Your task to perform on an android device: Open calendar and show me the first week of next month Image 0: 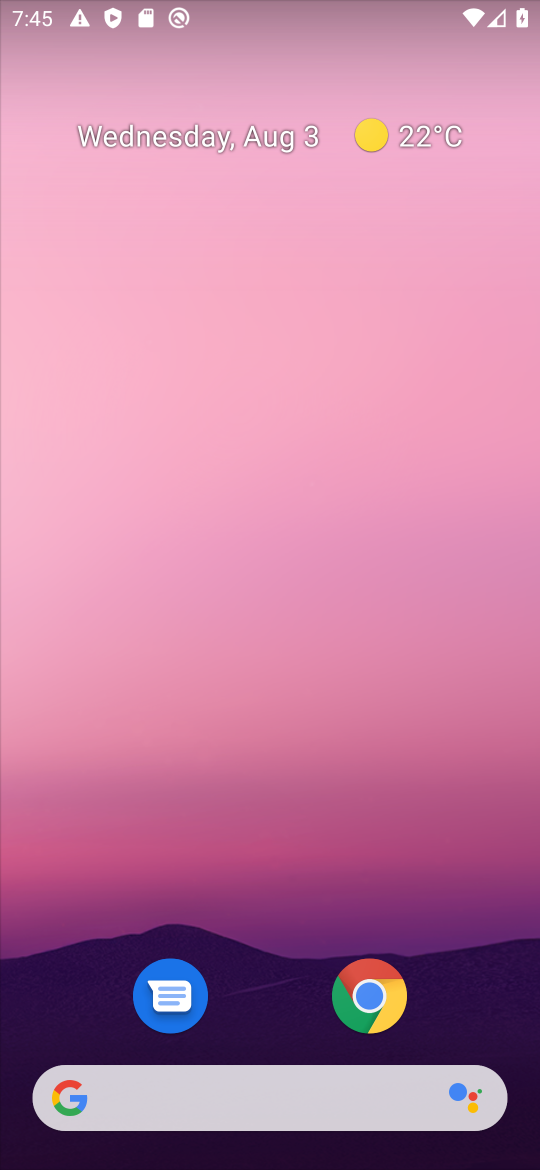
Step 0: drag from (271, 1005) to (312, 173)
Your task to perform on an android device: Open calendar and show me the first week of next month Image 1: 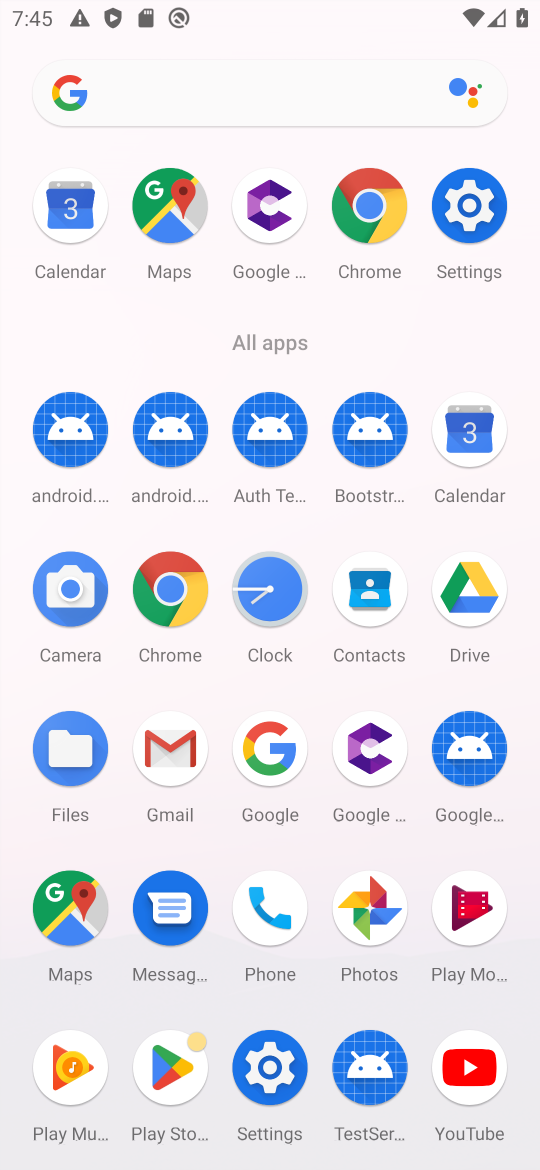
Step 1: click (485, 424)
Your task to perform on an android device: Open calendar and show me the first week of next month Image 2: 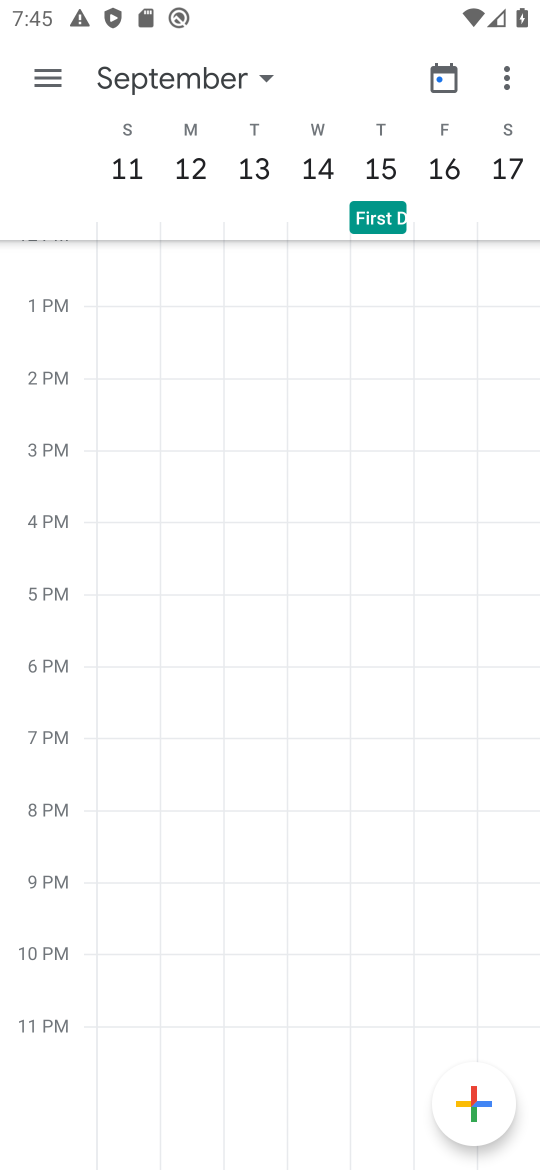
Step 2: task complete